Your task to perform on an android device: Open Google Maps and go to "Timeline" Image 0: 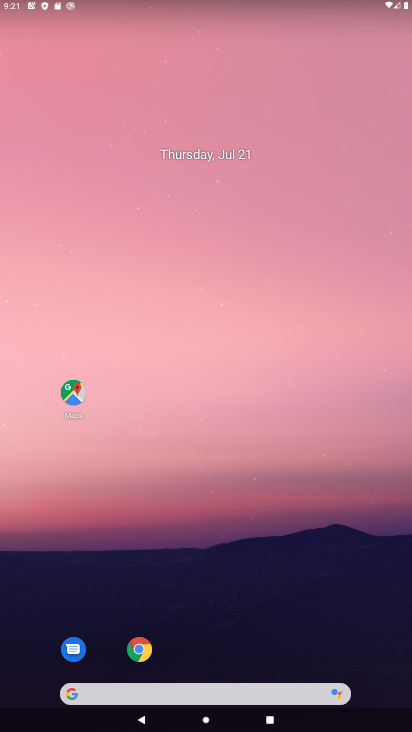
Step 0: drag from (260, 598) to (238, 12)
Your task to perform on an android device: Open Google Maps and go to "Timeline" Image 1: 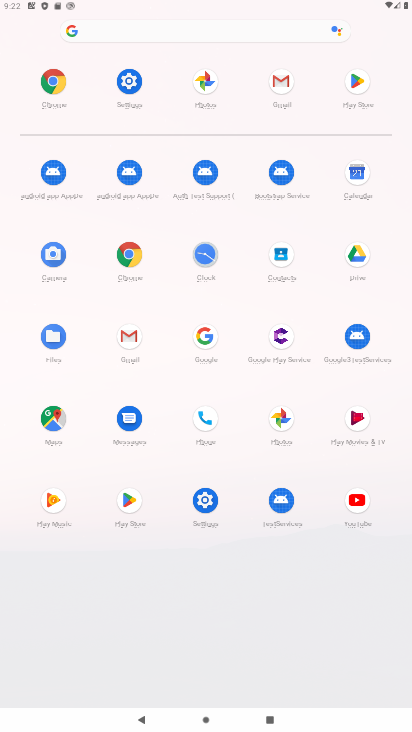
Step 1: click (50, 417)
Your task to perform on an android device: Open Google Maps and go to "Timeline" Image 2: 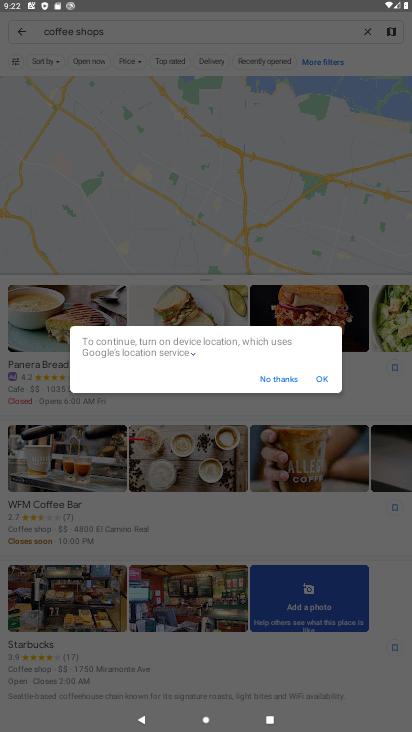
Step 2: click (284, 383)
Your task to perform on an android device: Open Google Maps and go to "Timeline" Image 3: 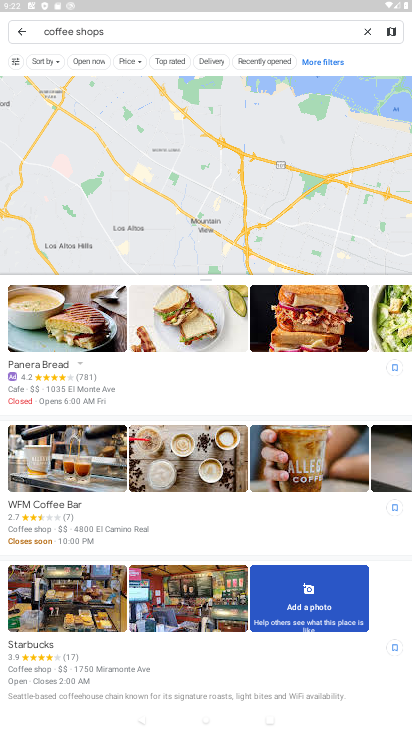
Step 3: click (21, 21)
Your task to perform on an android device: Open Google Maps and go to "Timeline" Image 4: 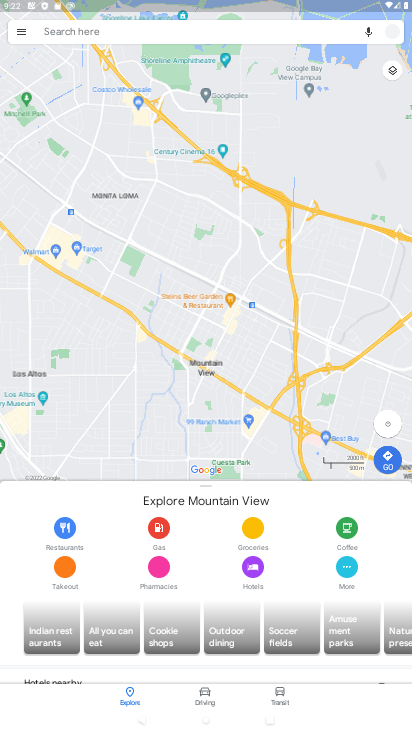
Step 4: click (24, 28)
Your task to perform on an android device: Open Google Maps and go to "Timeline" Image 5: 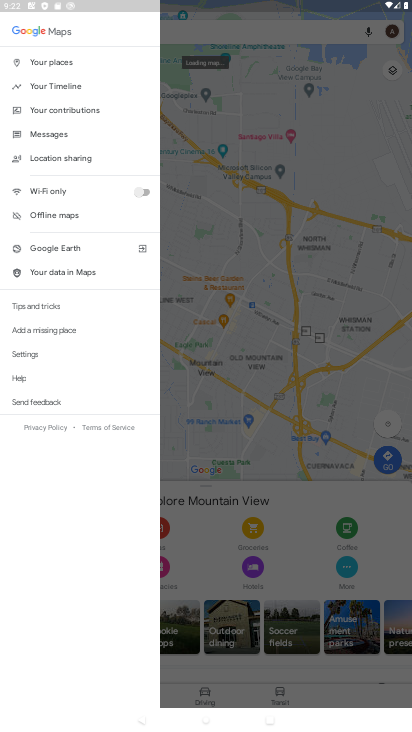
Step 5: click (74, 90)
Your task to perform on an android device: Open Google Maps and go to "Timeline" Image 6: 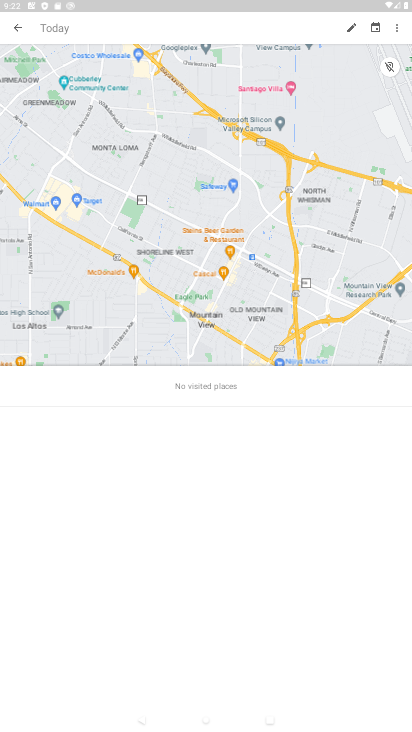
Step 6: task complete